Your task to perform on an android device: search for starred emails in the gmail app Image 0: 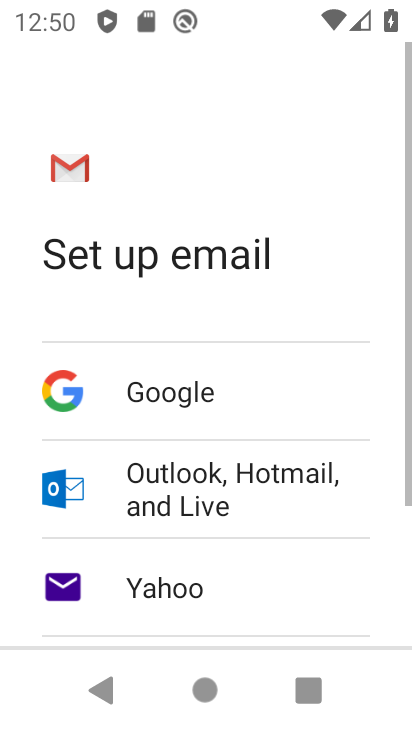
Step 0: press home button
Your task to perform on an android device: search for starred emails in the gmail app Image 1: 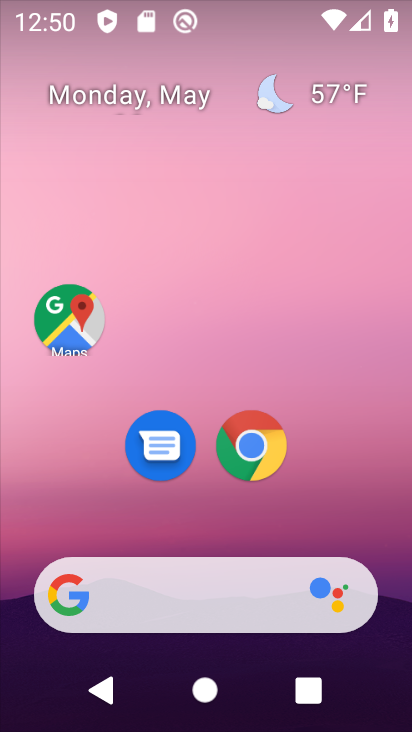
Step 1: drag from (394, 605) to (320, 191)
Your task to perform on an android device: search for starred emails in the gmail app Image 2: 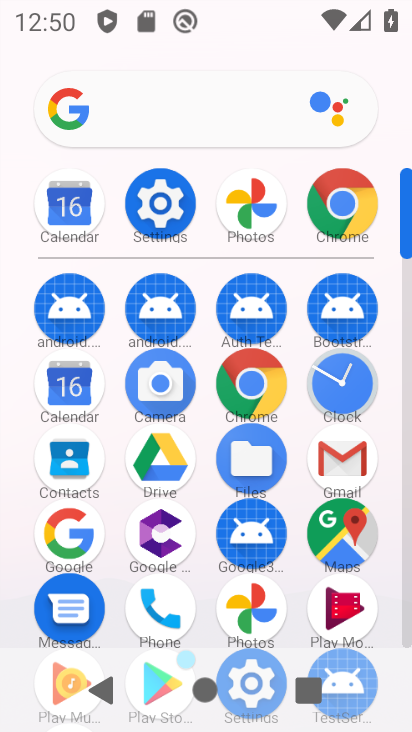
Step 2: click (334, 446)
Your task to perform on an android device: search for starred emails in the gmail app Image 3: 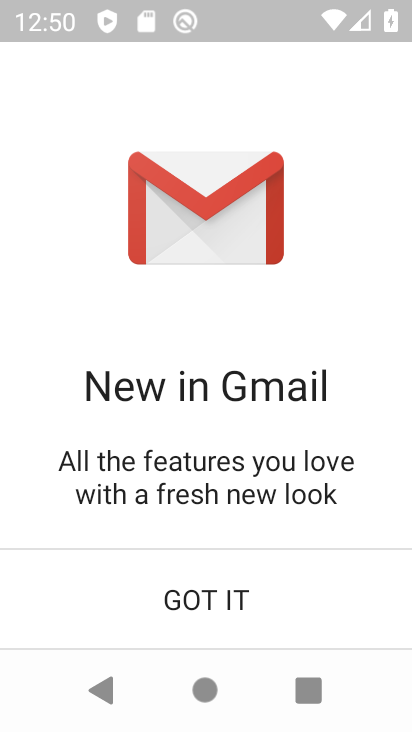
Step 3: click (255, 610)
Your task to perform on an android device: search for starred emails in the gmail app Image 4: 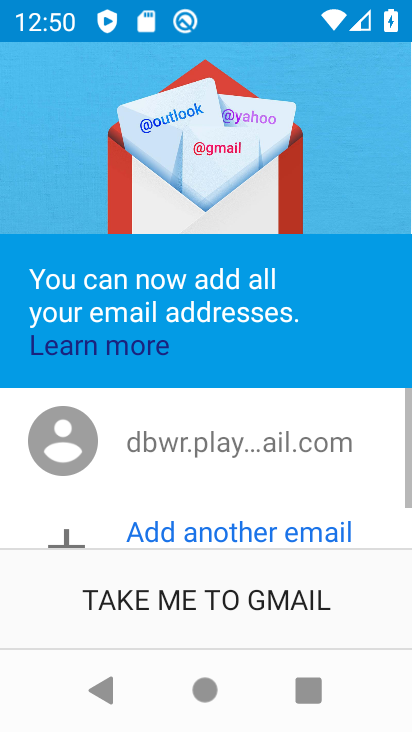
Step 4: click (255, 610)
Your task to perform on an android device: search for starred emails in the gmail app Image 5: 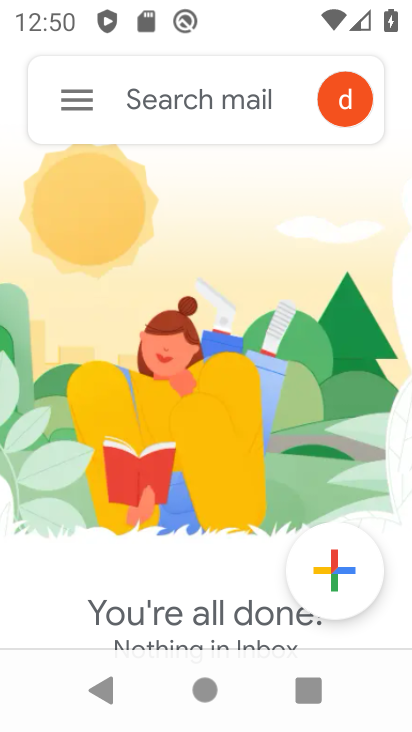
Step 5: click (65, 101)
Your task to perform on an android device: search for starred emails in the gmail app Image 6: 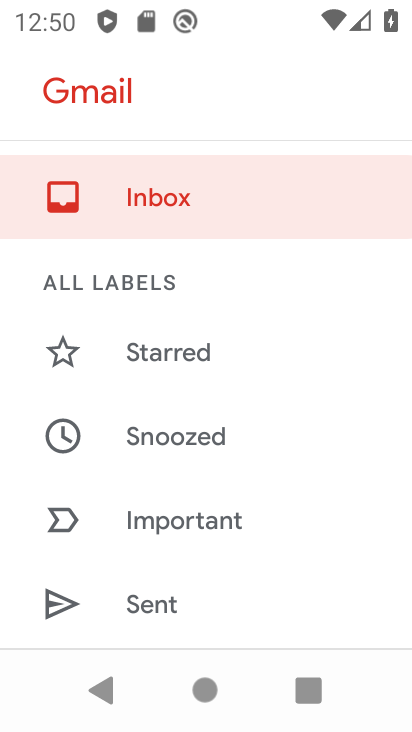
Step 6: click (206, 362)
Your task to perform on an android device: search for starred emails in the gmail app Image 7: 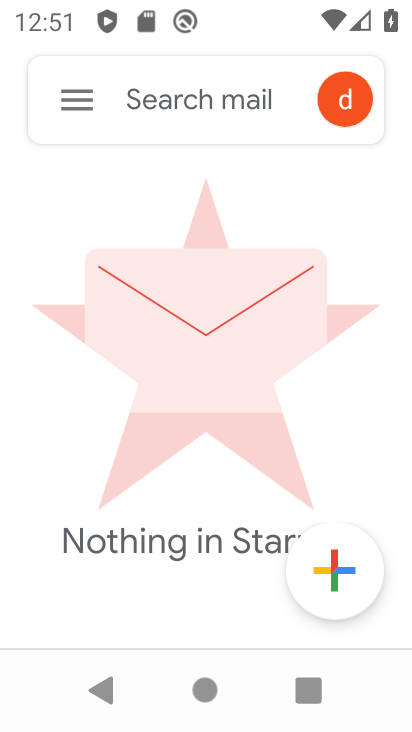
Step 7: task complete